Your task to perform on an android device: What is the news today? Image 0: 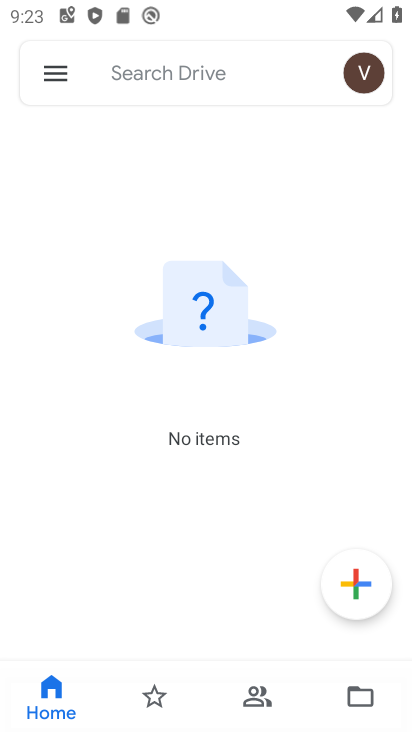
Step 0: press home button
Your task to perform on an android device: What is the news today? Image 1: 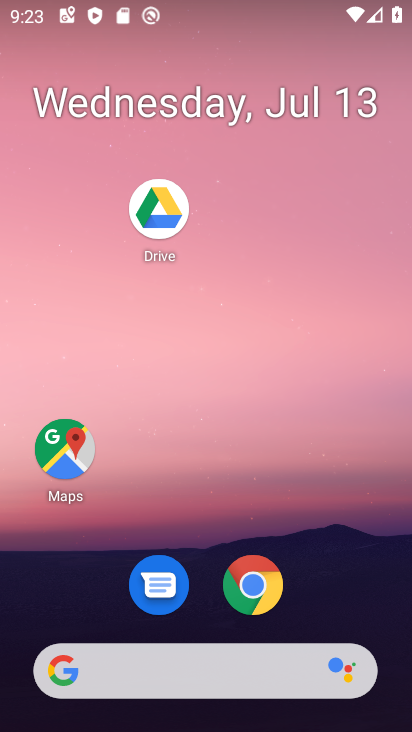
Step 1: click (133, 665)
Your task to perform on an android device: What is the news today? Image 2: 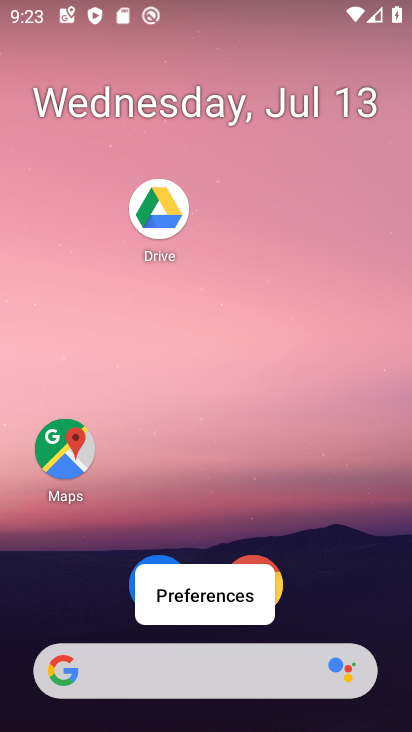
Step 2: click (152, 637)
Your task to perform on an android device: What is the news today? Image 3: 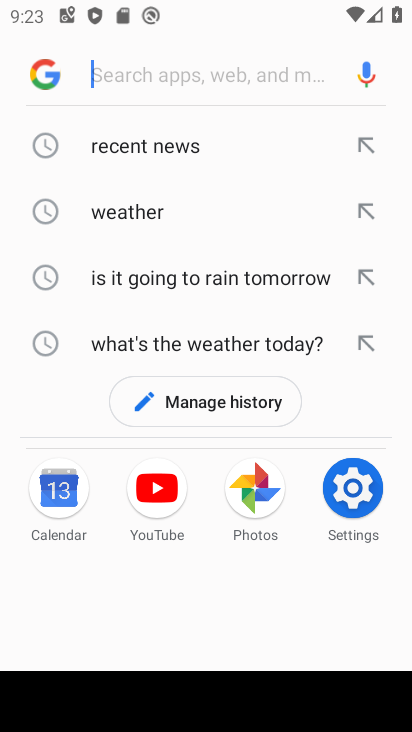
Step 3: click (154, 145)
Your task to perform on an android device: What is the news today? Image 4: 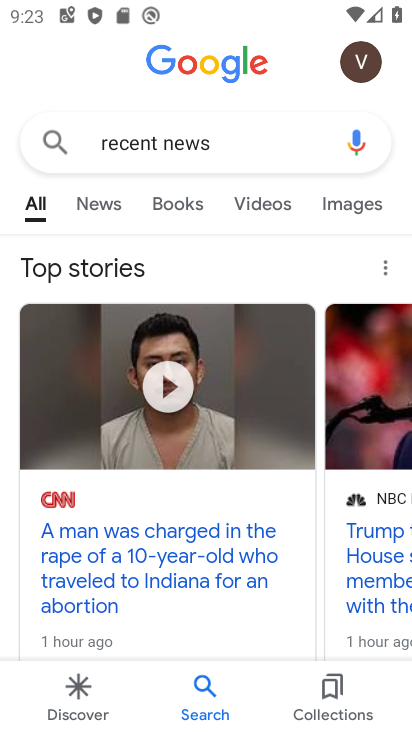
Step 4: click (118, 203)
Your task to perform on an android device: What is the news today? Image 5: 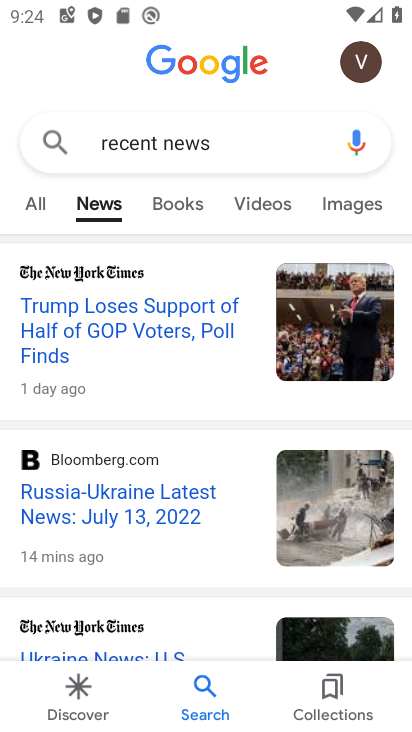
Step 5: task complete